Your task to perform on an android device: Show me recent news Image 0: 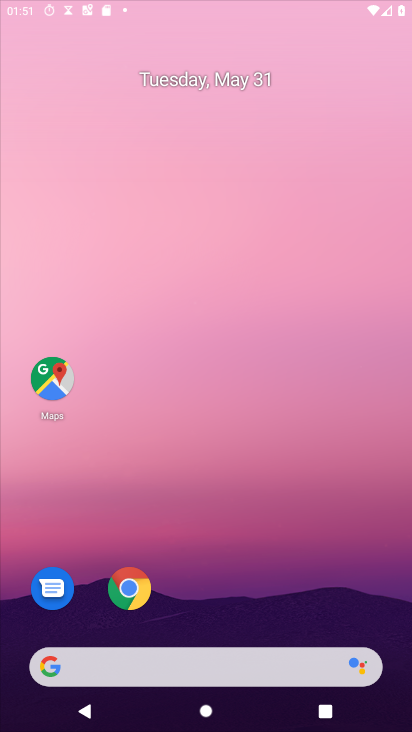
Step 0: click (288, 12)
Your task to perform on an android device: Show me recent news Image 1: 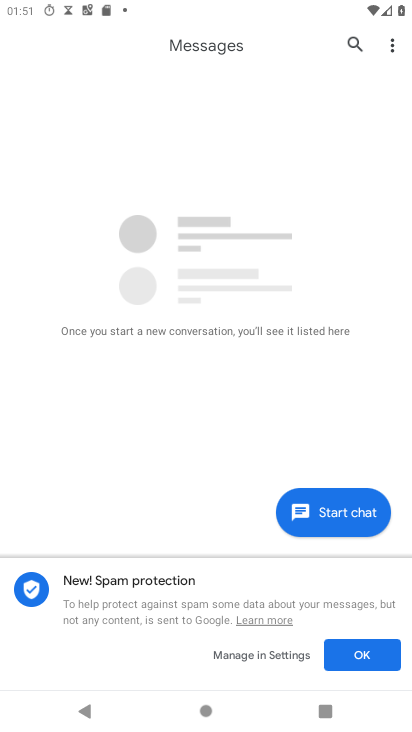
Step 1: press home button
Your task to perform on an android device: Show me recent news Image 2: 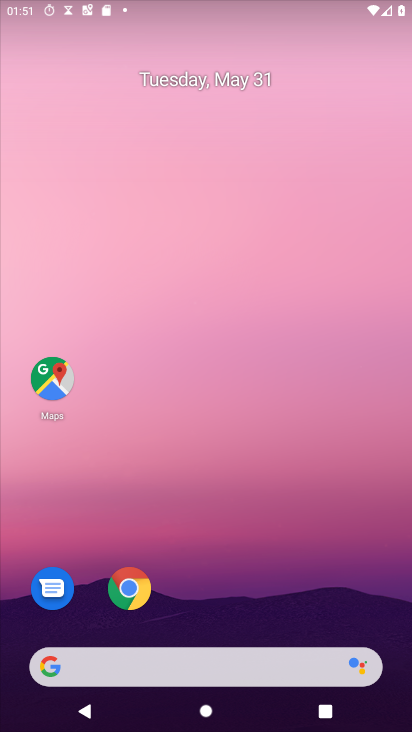
Step 2: drag from (168, 654) to (281, 14)
Your task to perform on an android device: Show me recent news Image 3: 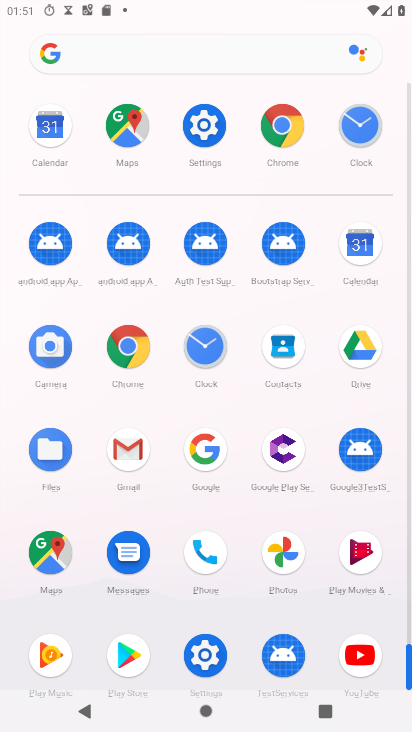
Step 3: click (137, 353)
Your task to perform on an android device: Show me recent news Image 4: 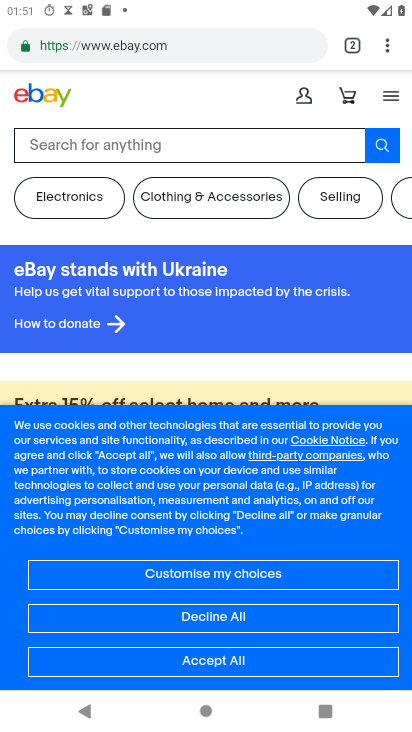
Step 4: click (243, 42)
Your task to perform on an android device: Show me recent news Image 5: 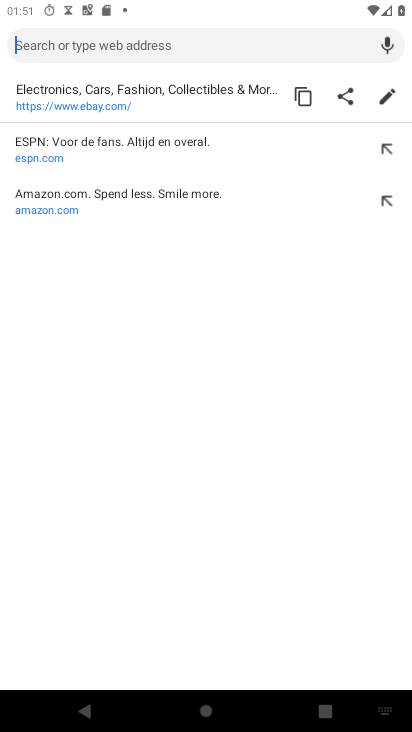
Step 5: type "recent news"
Your task to perform on an android device: Show me recent news Image 6: 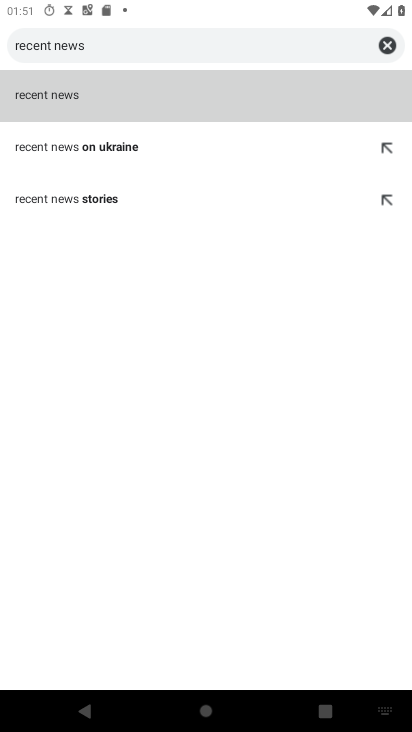
Step 6: click (132, 104)
Your task to perform on an android device: Show me recent news Image 7: 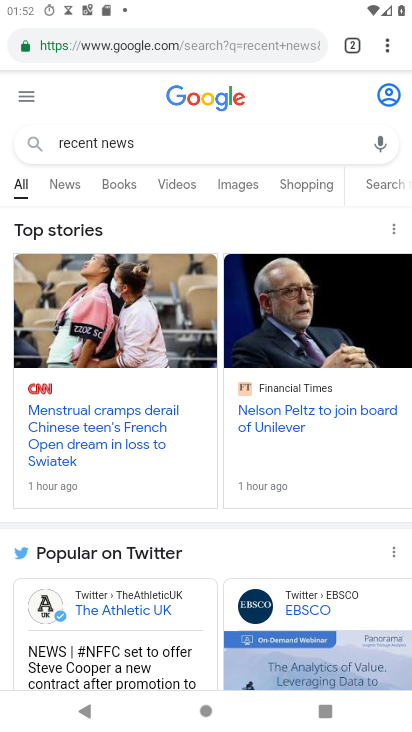
Step 7: task complete